Your task to perform on an android device: turn off improve location accuracy Image 0: 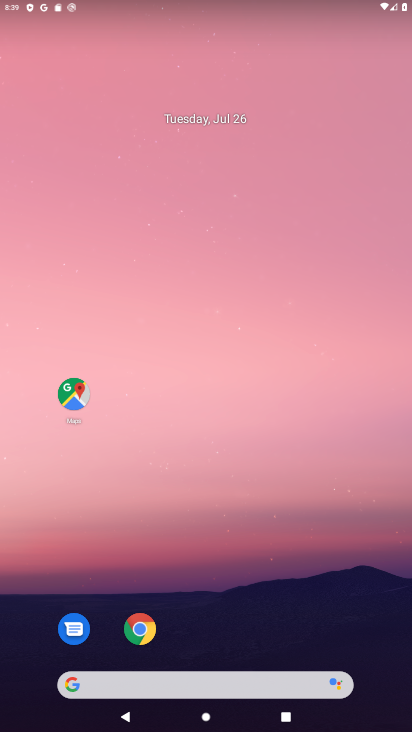
Step 0: press home button
Your task to perform on an android device: turn off improve location accuracy Image 1: 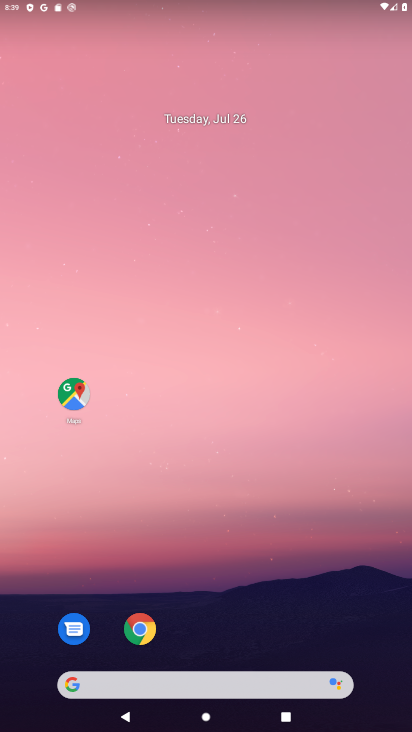
Step 1: press home button
Your task to perform on an android device: turn off improve location accuracy Image 2: 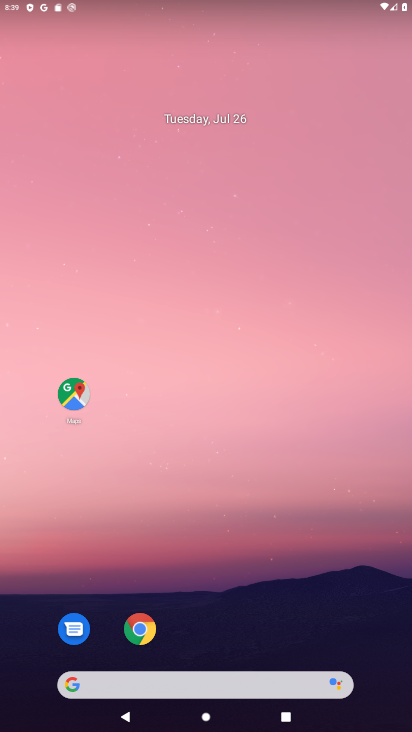
Step 2: drag from (274, 601) to (238, 322)
Your task to perform on an android device: turn off improve location accuracy Image 3: 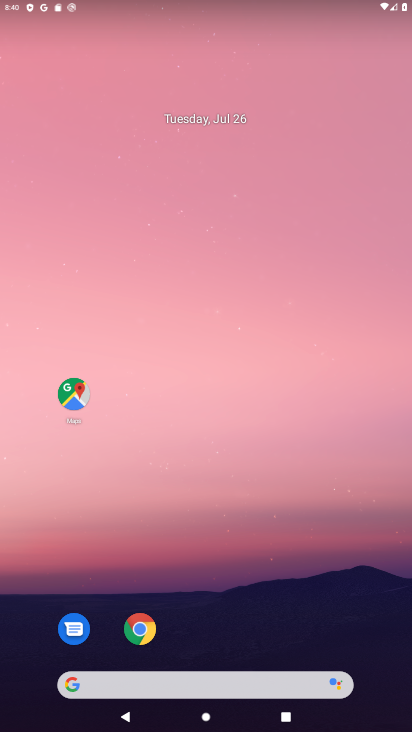
Step 3: drag from (228, 479) to (208, 234)
Your task to perform on an android device: turn off improve location accuracy Image 4: 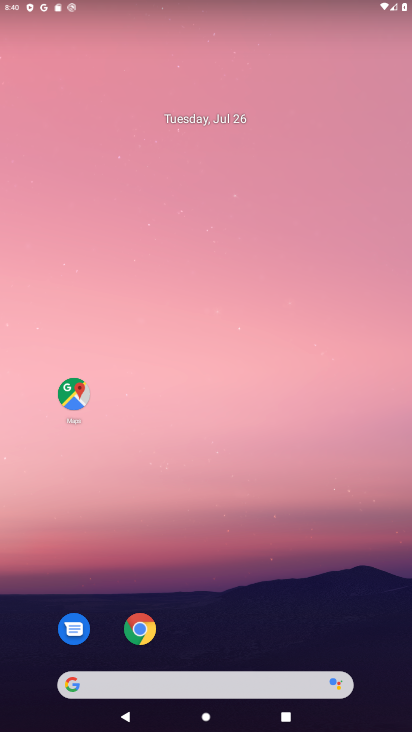
Step 4: drag from (263, 577) to (231, 91)
Your task to perform on an android device: turn off improve location accuracy Image 5: 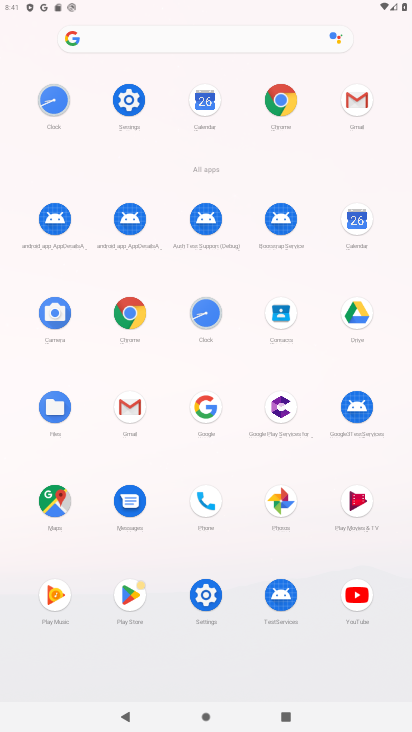
Step 5: click (203, 610)
Your task to perform on an android device: turn off improve location accuracy Image 6: 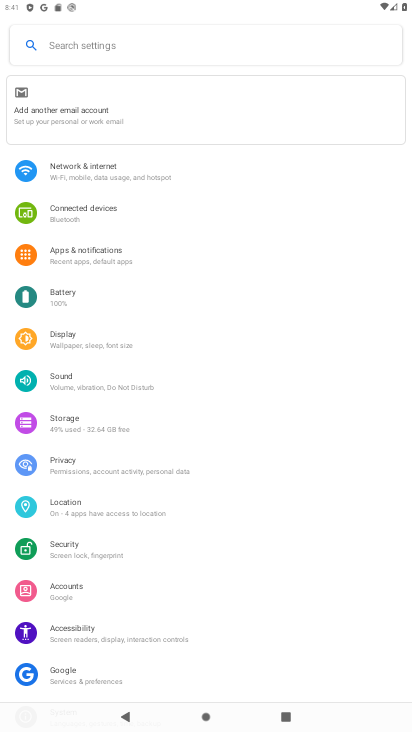
Step 6: click (62, 512)
Your task to perform on an android device: turn off improve location accuracy Image 7: 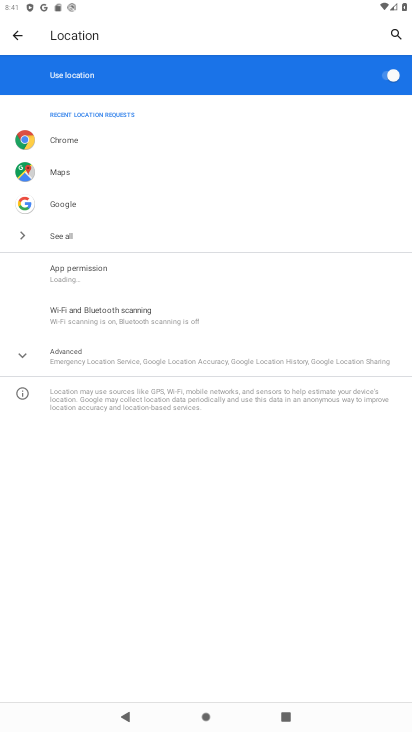
Step 7: click (99, 354)
Your task to perform on an android device: turn off improve location accuracy Image 8: 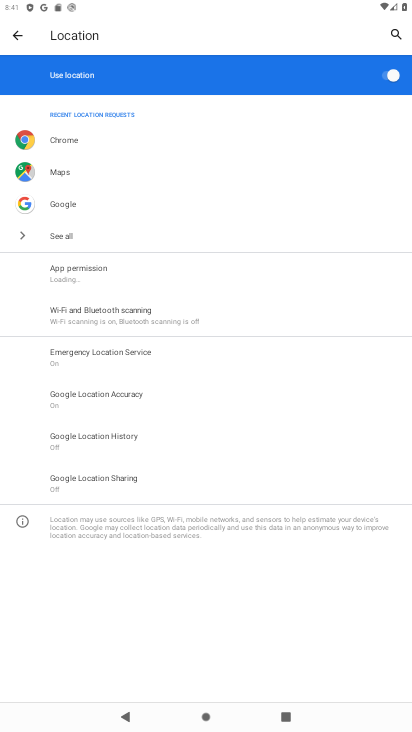
Step 8: click (89, 398)
Your task to perform on an android device: turn off improve location accuracy Image 9: 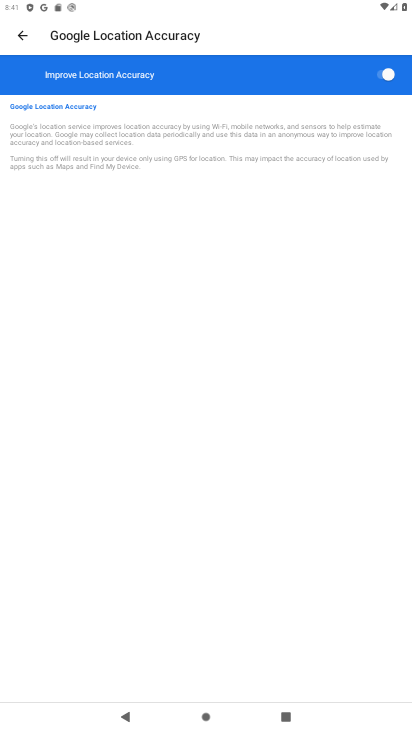
Step 9: click (242, 76)
Your task to perform on an android device: turn off improve location accuracy Image 10: 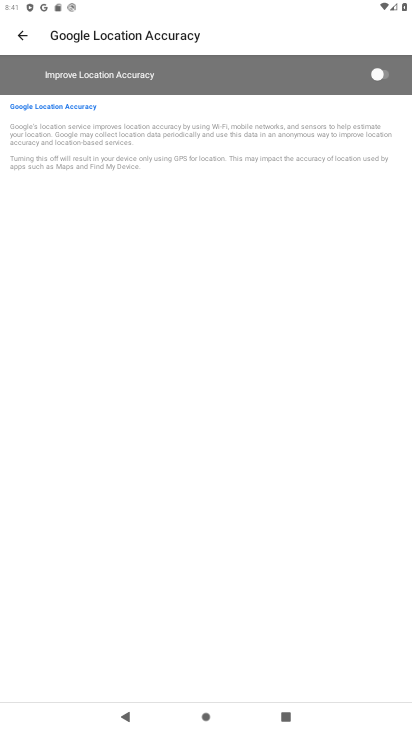
Step 10: task complete